Your task to perform on an android device: Open Google Chrome Image 0: 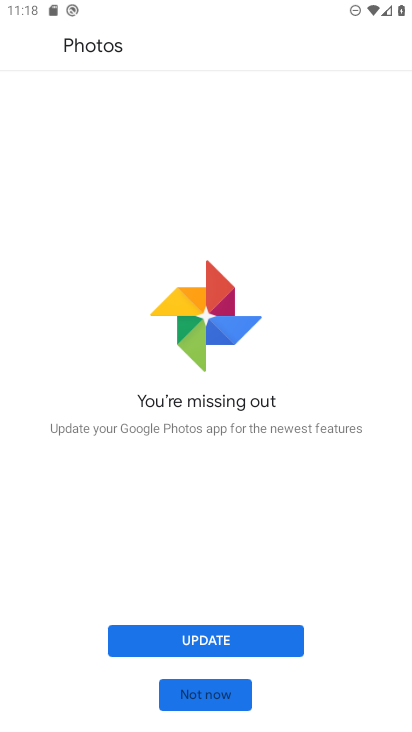
Step 0: press home button
Your task to perform on an android device: Open Google Chrome Image 1: 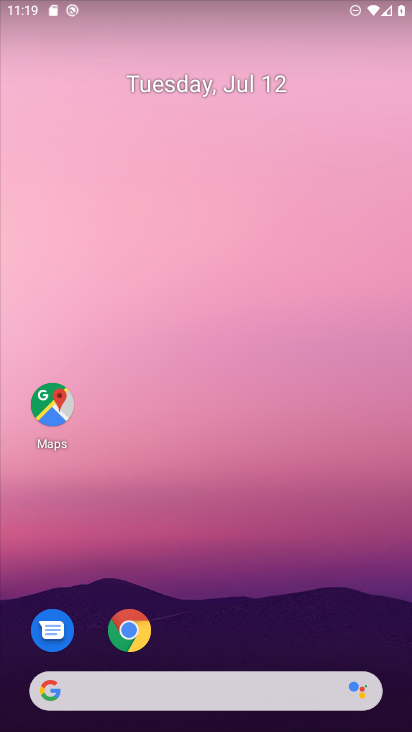
Step 1: click (127, 633)
Your task to perform on an android device: Open Google Chrome Image 2: 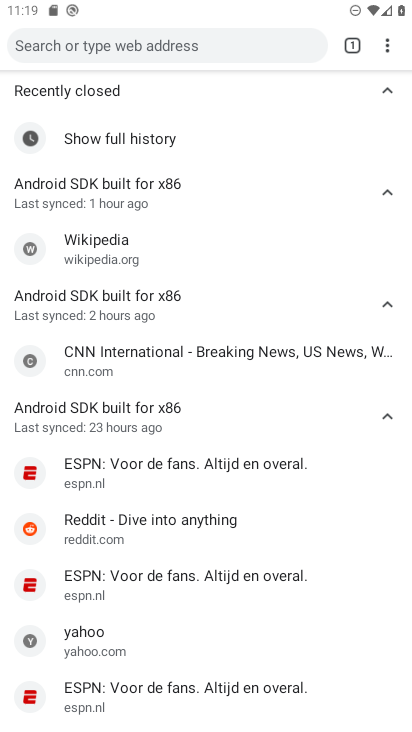
Step 2: task complete